Your task to perform on an android device: turn off notifications in google photos Image 0: 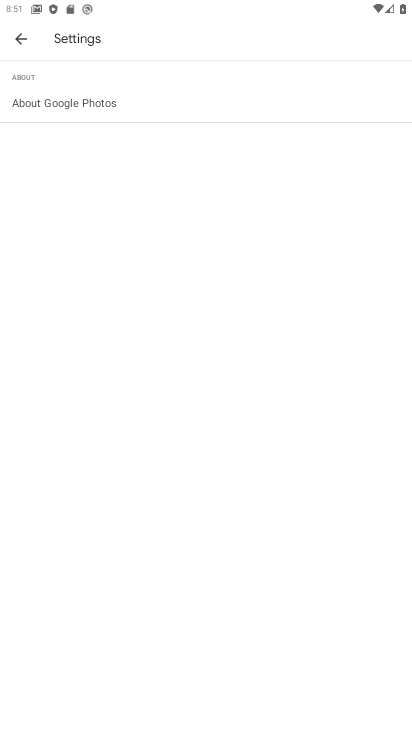
Step 0: press home button
Your task to perform on an android device: turn off notifications in google photos Image 1: 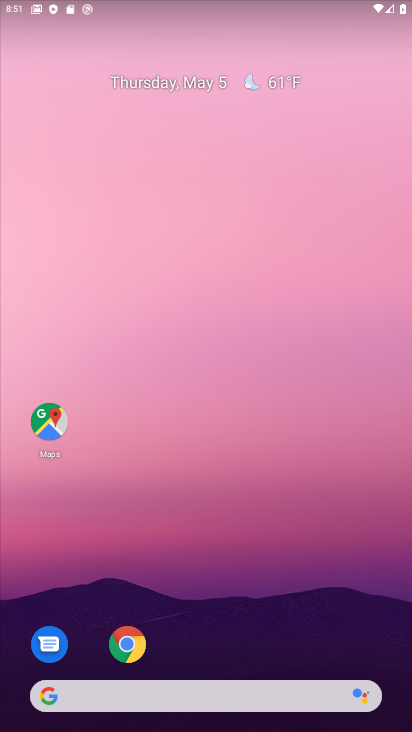
Step 1: drag from (197, 676) to (189, 95)
Your task to perform on an android device: turn off notifications in google photos Image 2: 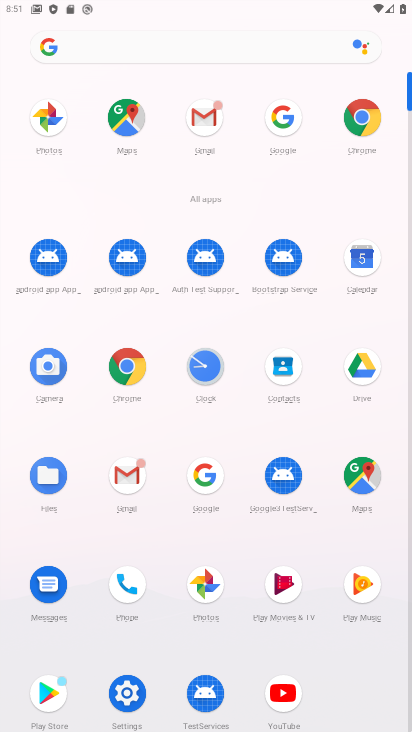
Step 2: click (194, 590)
Your task to perform on an android device: turn off notifications in google photos Image 3: 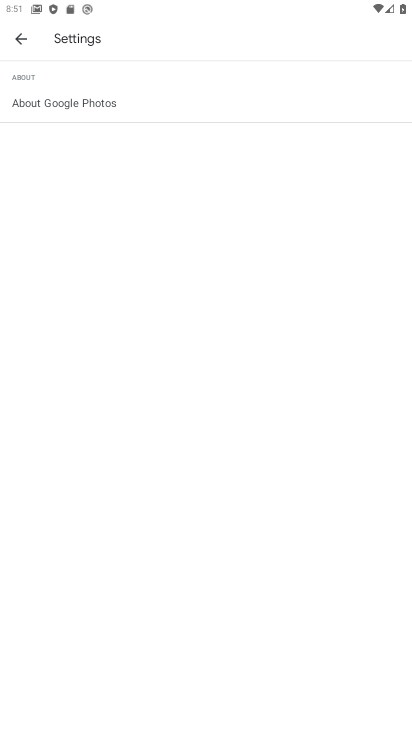
Step 3: click (18, 37)
Your task to perform on an android device: turn off notifications in google photos Image 4: 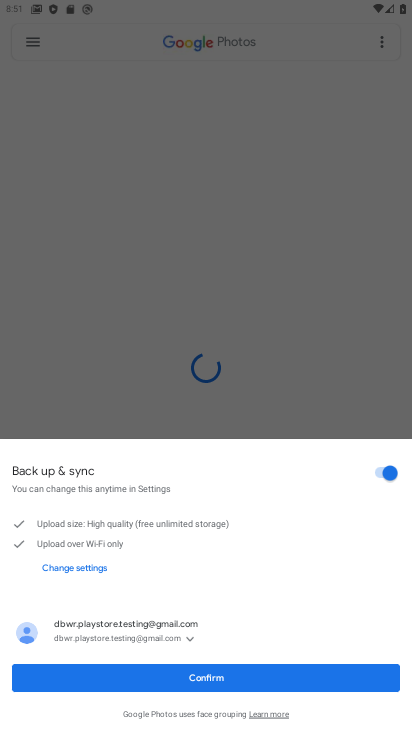
Step 4: click (209, 684)
Your task to perform on an android device: turn off notifications in google photos Image 5: 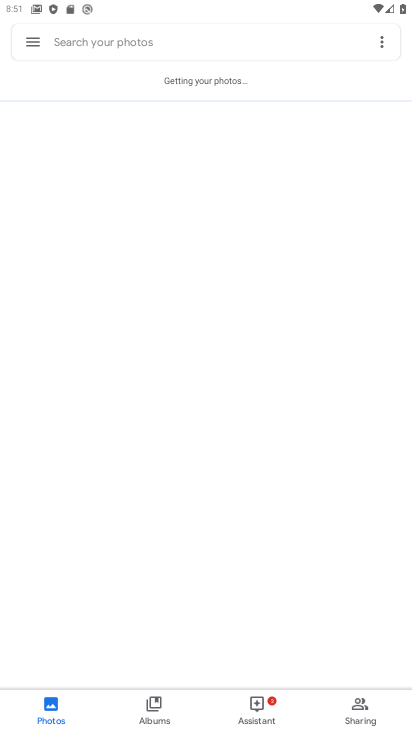
Step 5: click (382, 42)
Your task to perform on an android device: turn off notifications in google photos Image 6: 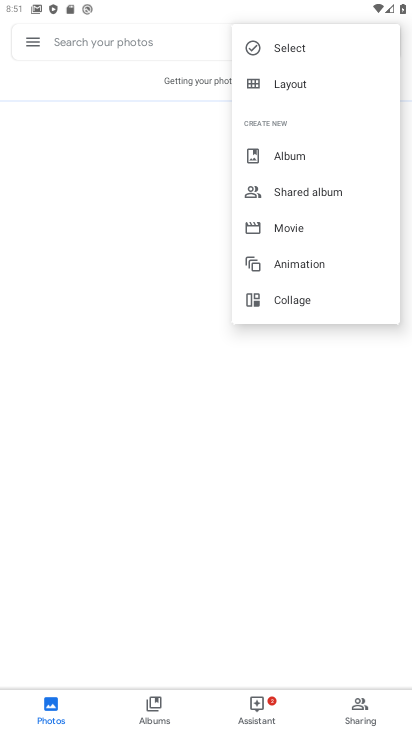
Step 6: click (137, 308)
Your task to perform on an android device: turn off notifications in google photos Image 7: 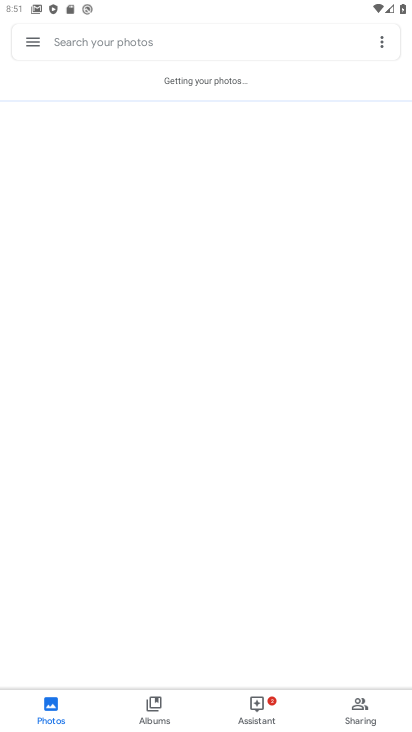
Step 7: click (37, 46)
Your task to perform on an android device: turn off notifications in google photos Image 8: 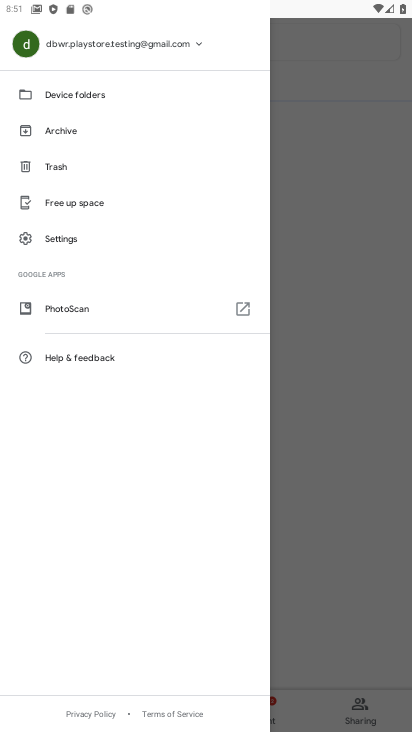
Step 8: click (56, 238)
Your task to perform on an android device: turn off notifications in google photos Image 9: 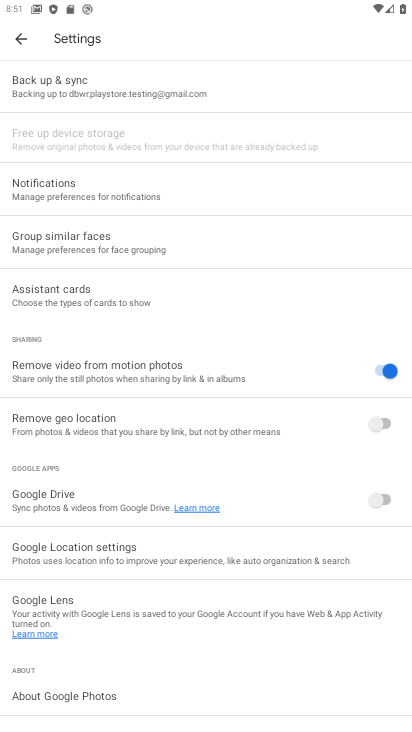
Step 9: click (98, 196)
Your task to perform on an android device: turn off notifications in google photos Image 10: 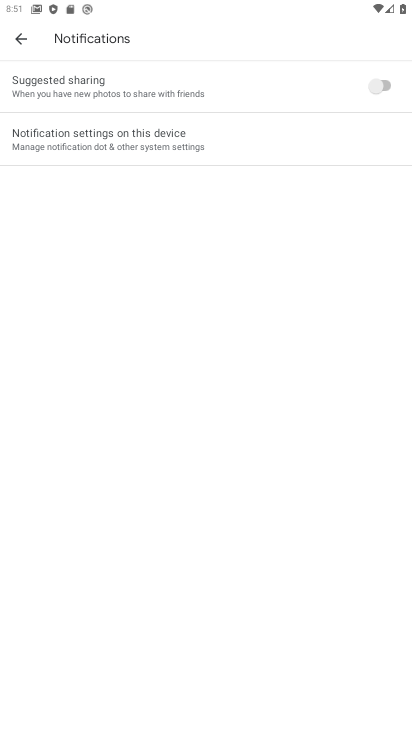
Step 10: click (202, 151)
Your task to perform on an android device: turn off notifications in google photos Image 11: 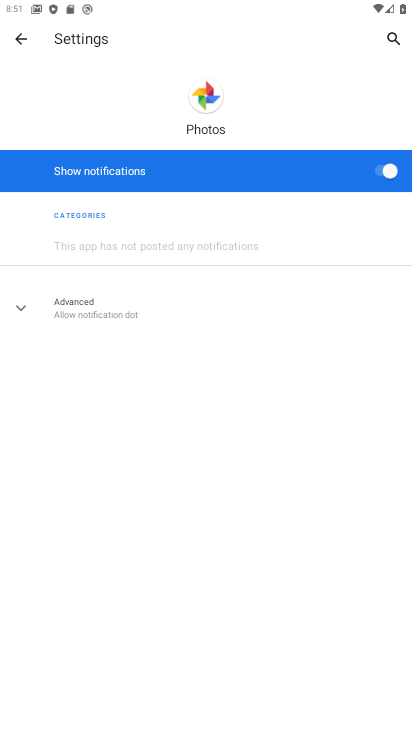
Step 11: click (392, 173)
Your task to perform on an android device: turn off notifications in google photos Image 12: 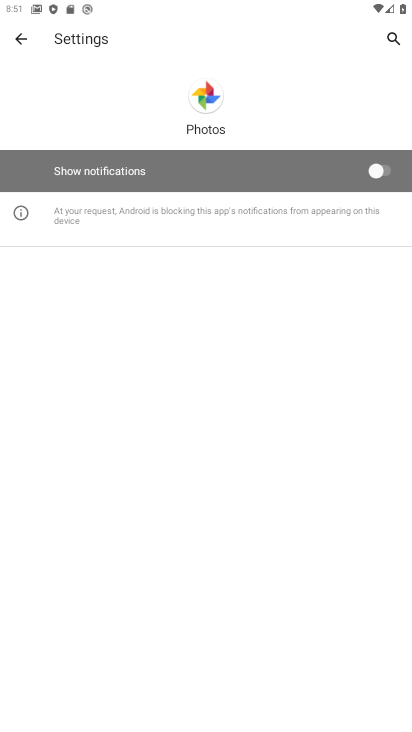
Step 12: task complete